Your task to perform on an android device: Open Reddit.com Image 0: 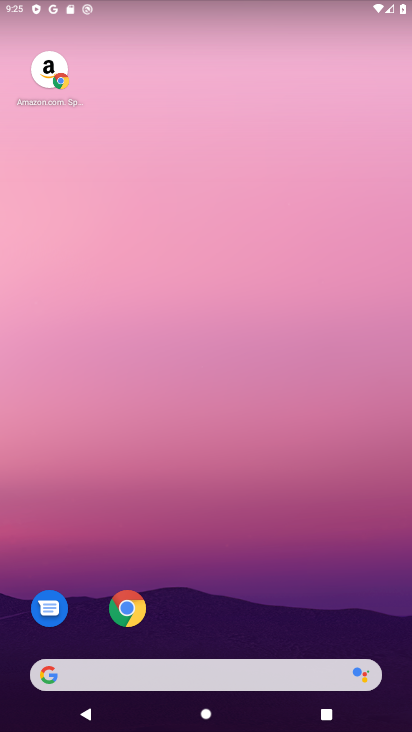
Step 0: drag from (193, 685) to (102, 104)
Your task to perform on an android device: Open Reddit.com Image 1: 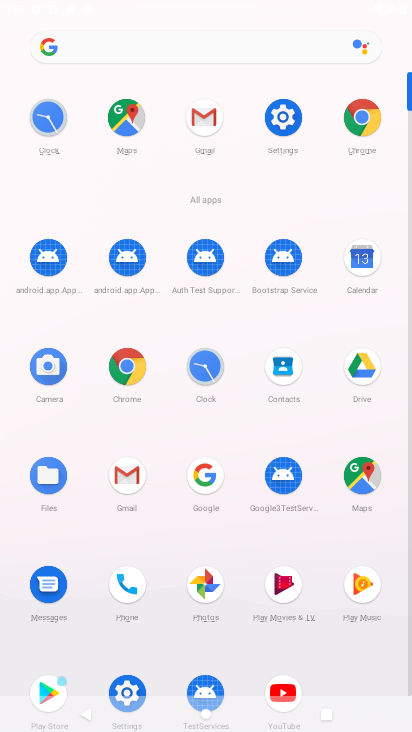
Step 1: click (128, 363)
Your task to perform on an android device: Open Reddit.com Image 2: 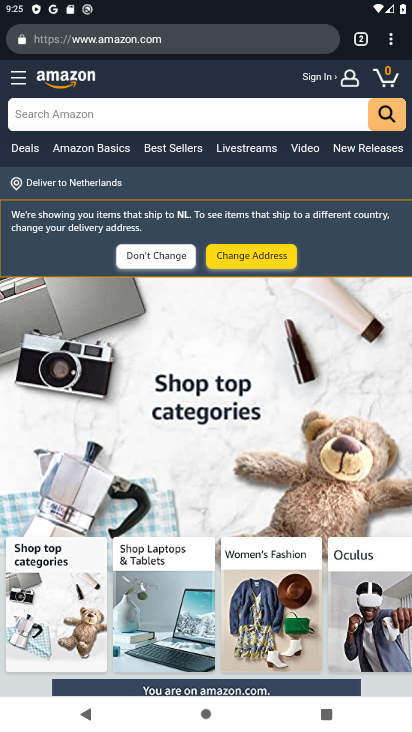
Step 2: click (210, 39)
Your task to perform on an android device: Open Reddit.com Image 3: 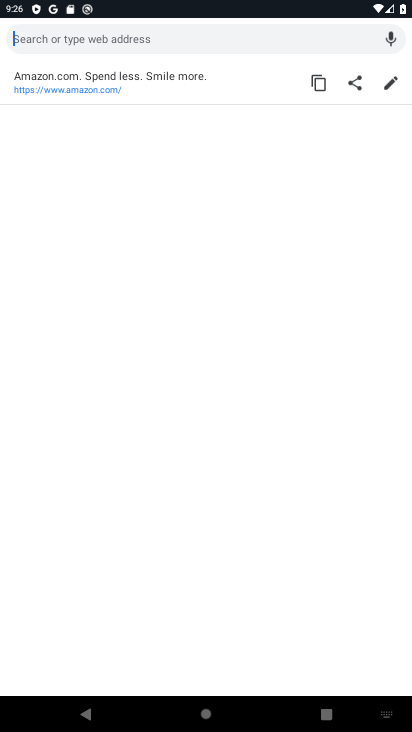
Step 3: type "reddit.com"
Your task to perform on an android device: Open Reddit.com Image 4: 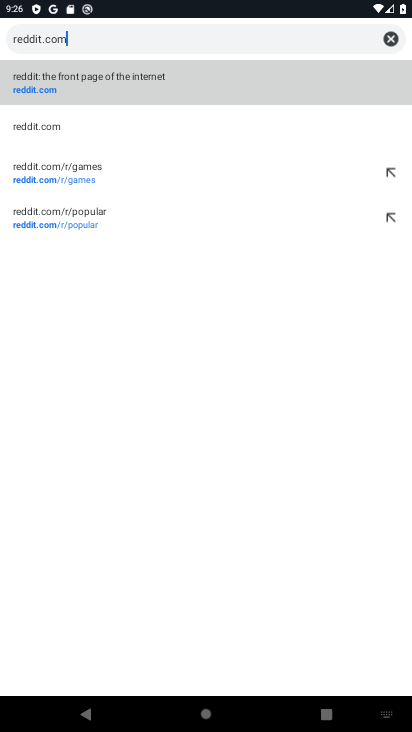
Step 4: click (362, 72)
Your task to perform on an android device: Open Reddit.com Image 5: 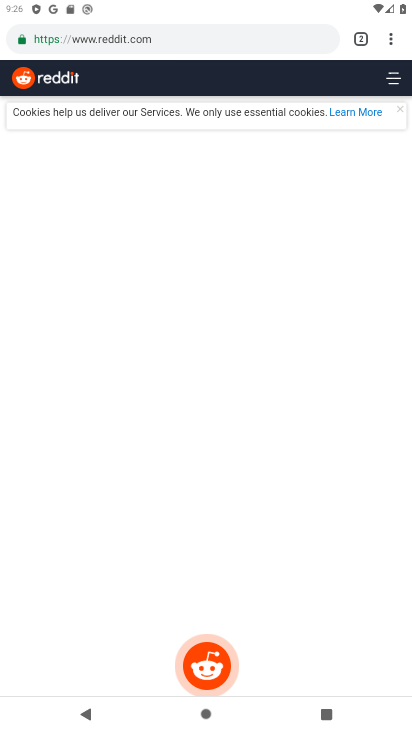
Step 5: task complete